Your task to perform on an android device: find photos in the google photos app Image 0: 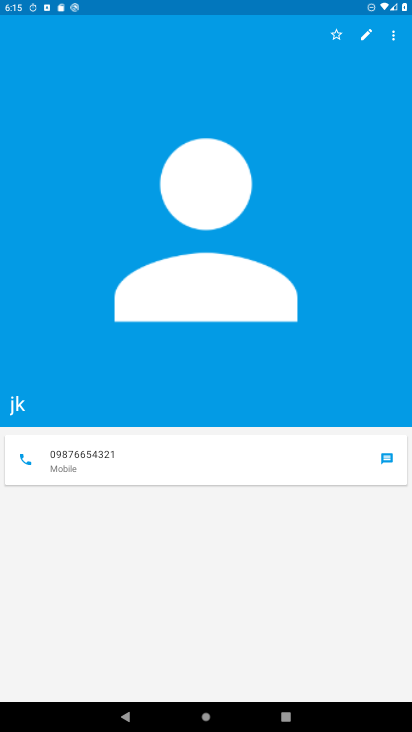
Step 0: press home button
Your task to perform on an android device: find photos in the google photos app Image 1: 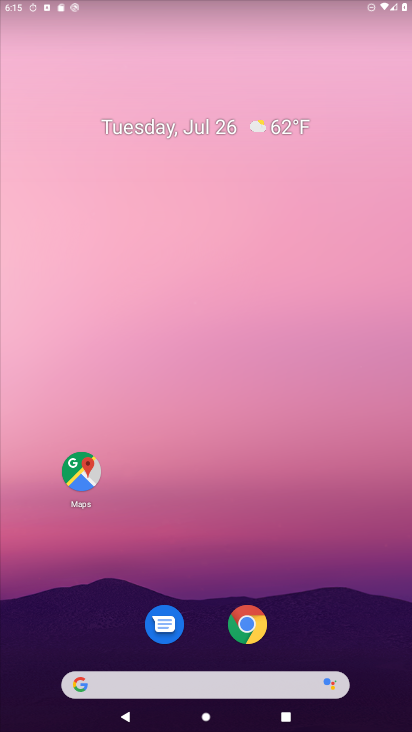
Step 1: drag from (329, 625) to (361, 58)
Your task to perform on an android device: find photos in the google photos app Image 2: 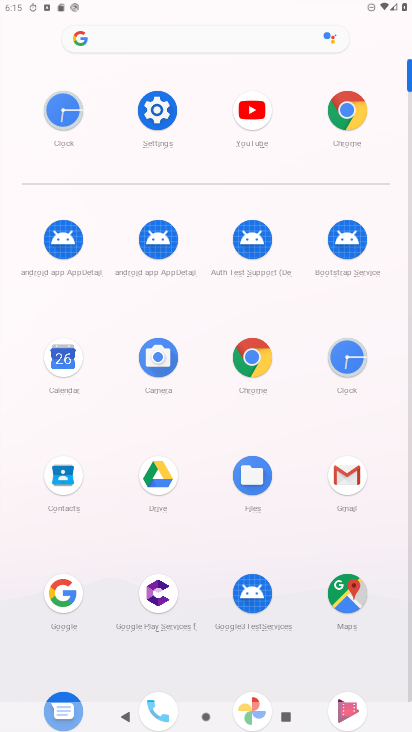
Step 2: drag from (244, 668) to (307, 215)
Your task to perform on an android device: find photos in the google photos app Image 3: 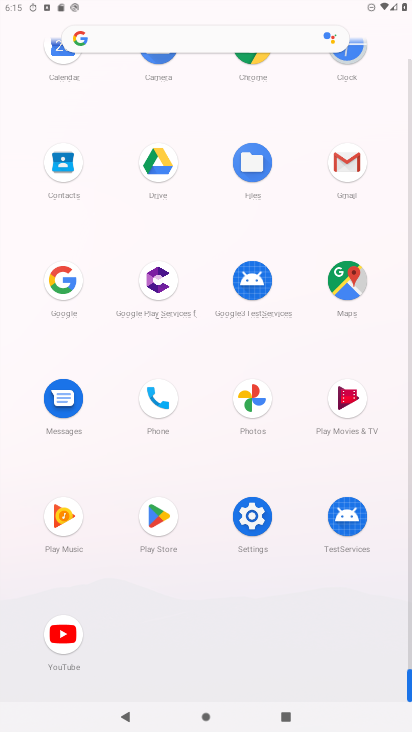
Step 3: click (254, 390)
Your task to perform on an android device: find photos in the google photos app Image 4: 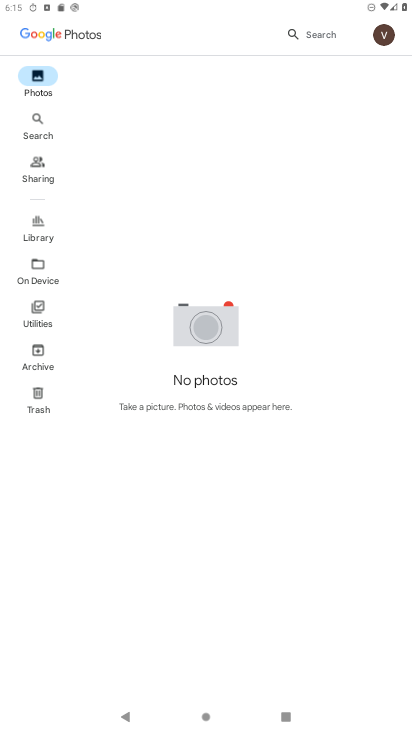
Step 4: click (35, 79)
Your task to perform on an android device: find photos in the google photos app Image 5: 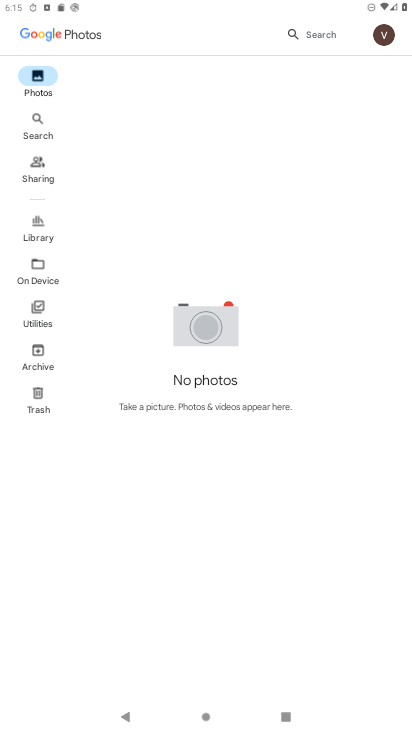
Step 5: task complete